Your task to perform on an android device: turn off translation in the chrome app Image 0: 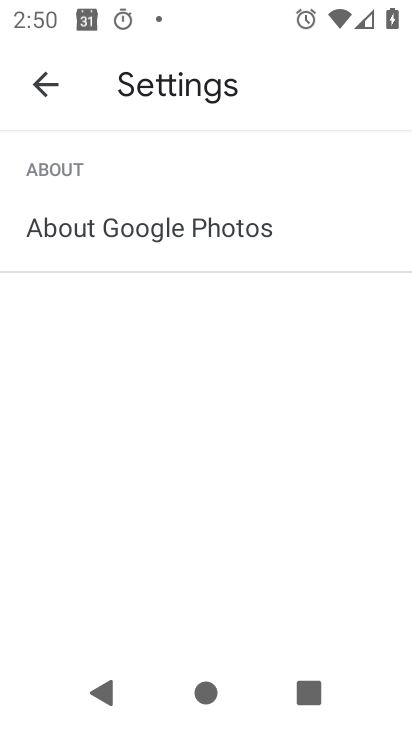
Step 0: press home button
Your task to perform on an android device: turn off translation in the chrome app Image 1: 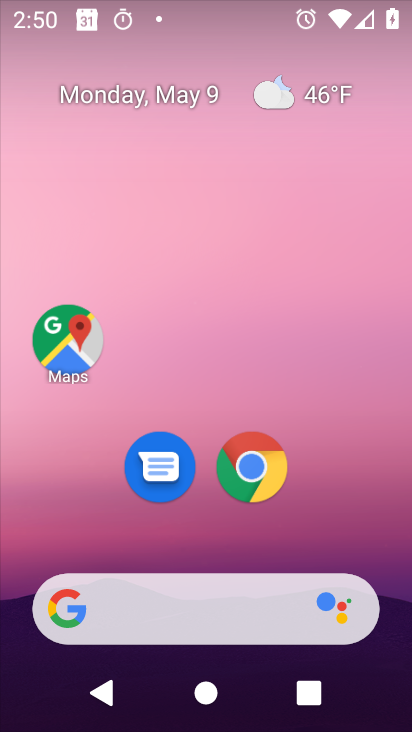
Step 1: click (254, 459)
Your task to perform on an android device: turn off translation in the chrome app Image 2: 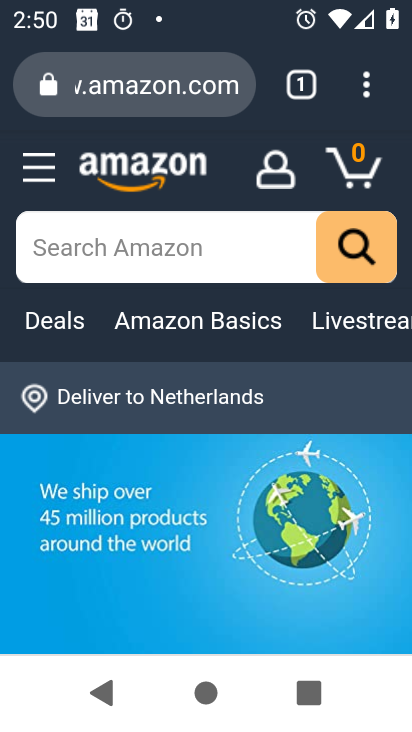
Step 2: click (266, 502)
Your task to perform on an android device: turn off translation in the chrome app Image 3: 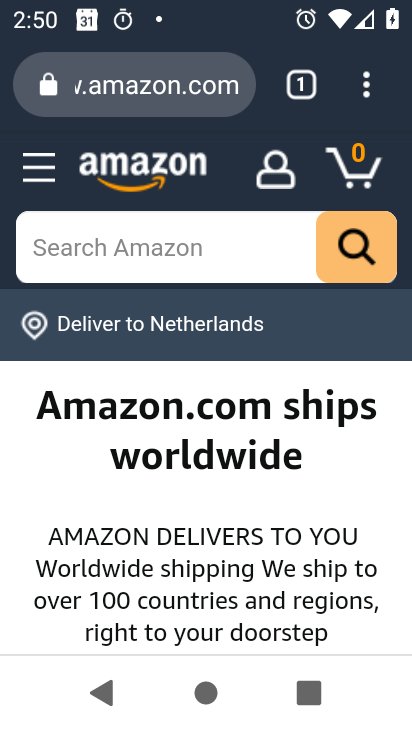
Step 3: click (381, 82)
Your task to perform on an android device: turn off translation in the chrome app Image 4: 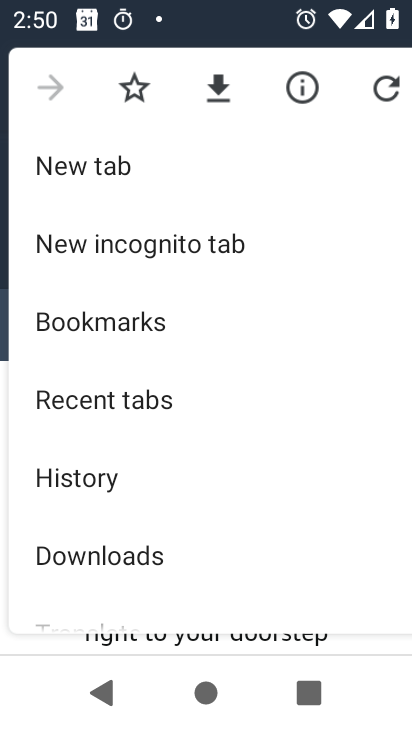
Step 4: drag from (276, 476) to (250, 47)
Your task to perform on an android device: turn off translation in the chrome app Image 5: 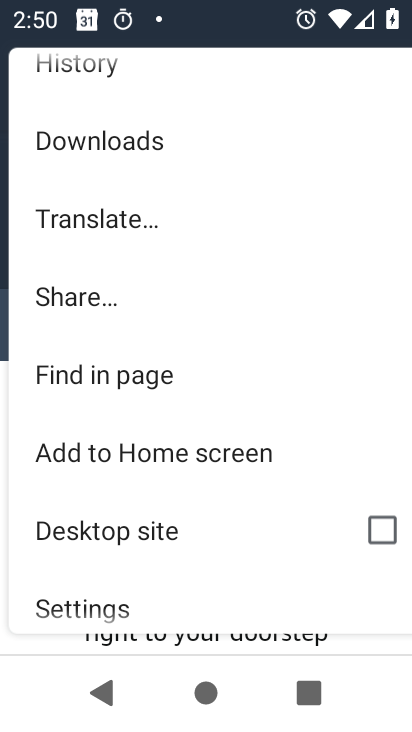
Step 5: drag from (204, 555) to (294, 206)
Your task to perform on an android device: turn off translation in the chrome app Image 6: 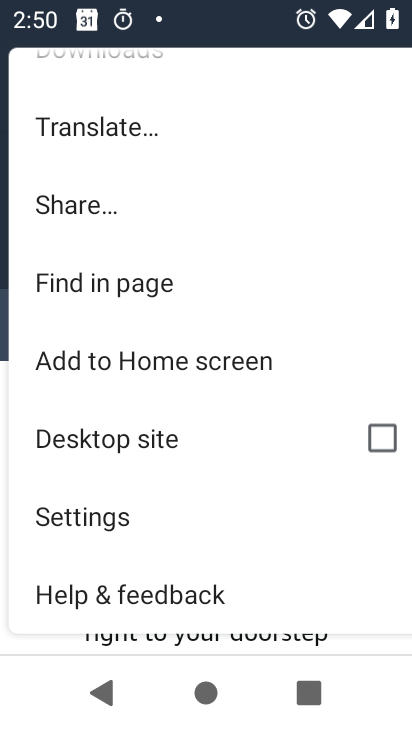
Step 6: click (108, 518)
Your task to perform on an android device: turn off translation in the chrome app Image 7: 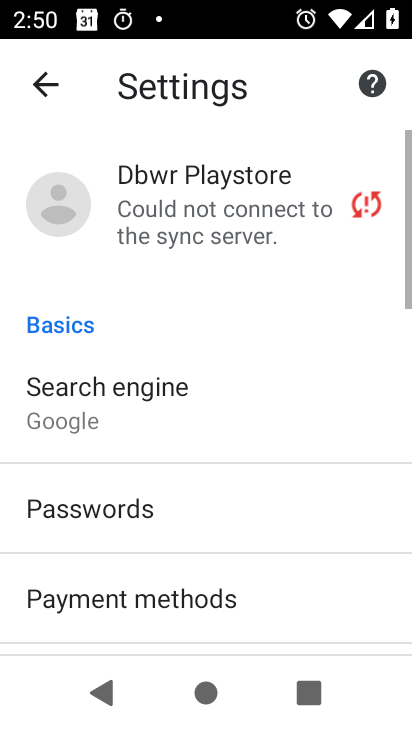
Step 7: drag from (285, 630) to (316, 158)
Your task to perform on an android device: turn off translation in the chrome app Image 8: 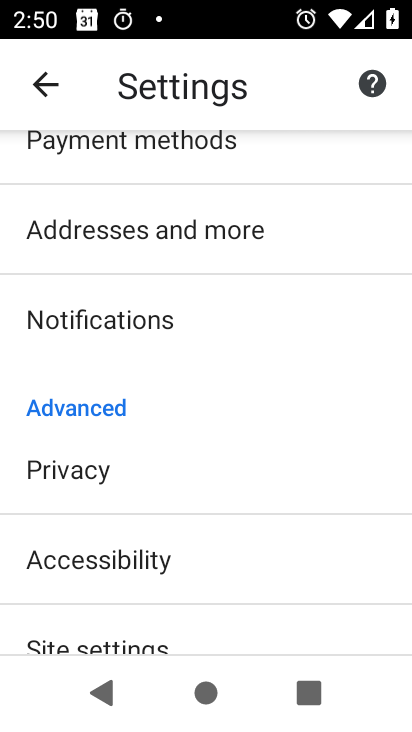
Step 8: drag from (203, 493) to (275, 154)
Your task to perform on an android device: turn off translation in the chrome app Image 9: 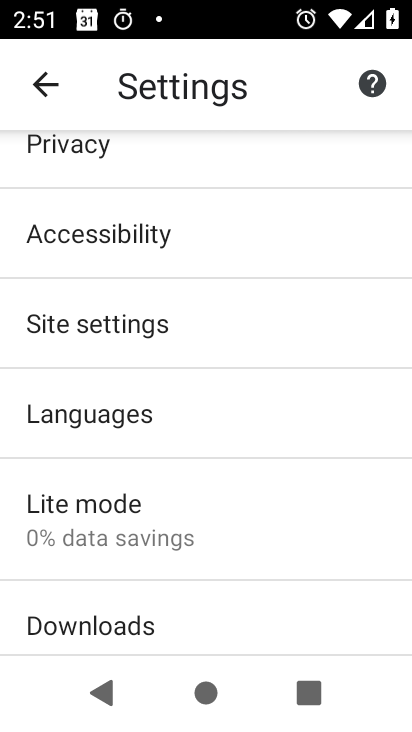
Step 9: drag from (281, 520) to (297, 275)
Your task to perform on an android device: turn off translation in the chrome app Image 10: 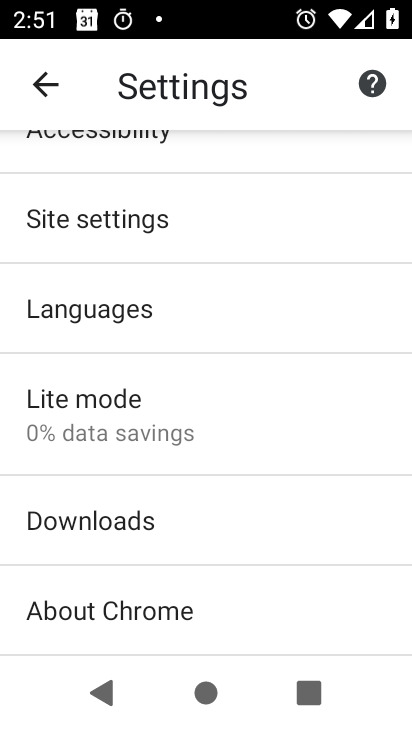
Step 10: click (143, 316)
Your task to perform on an android device: turn off translation in the chrome app Image 11: 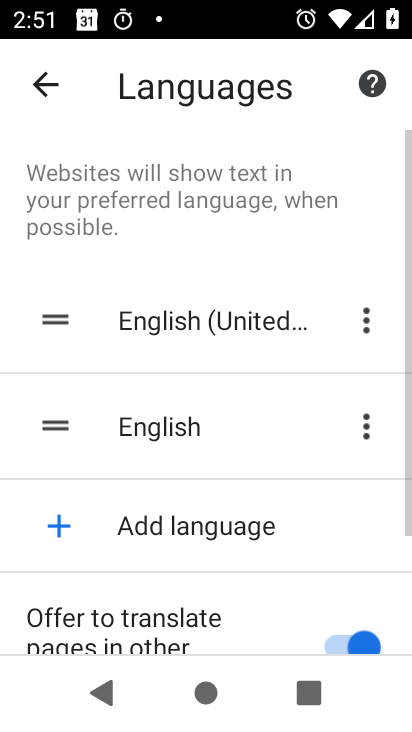
Step 11: drag from (233, 560) to (269, 148)
Your task to perform on an android device: turn off translation in the chrome app Image 12: 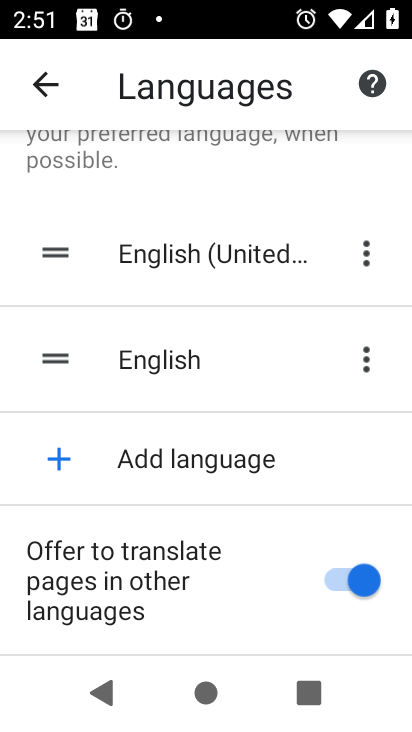
Step 12: click (338, 585)
Your task to perform on an android device: turn off translation in the chrome app Image 13: 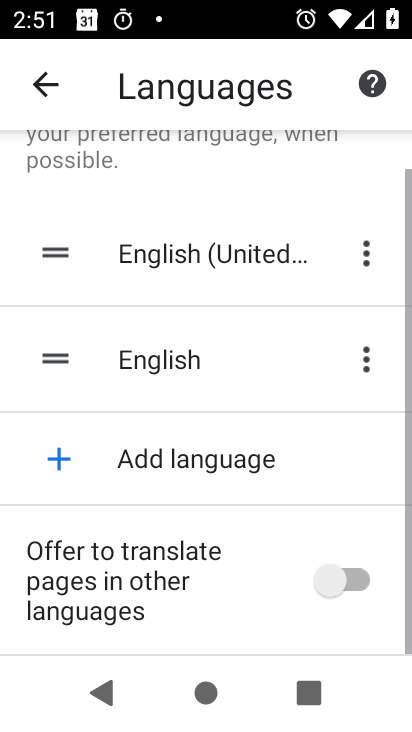
Step 13: task complete